Your task to perform on an android device: Open Chrome and go to the settings page Image 0: 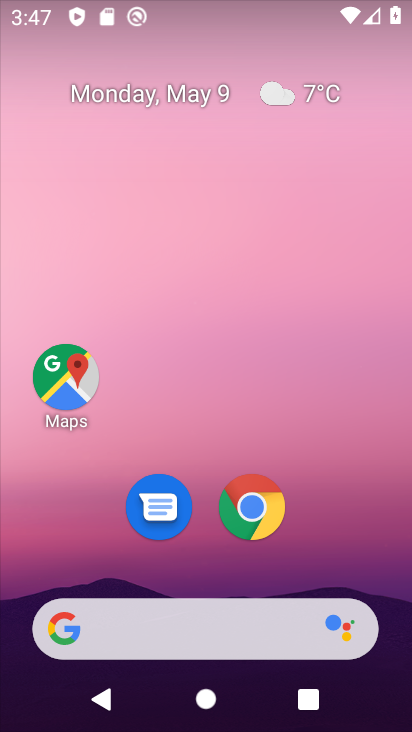
Step 0: drag from (296, 669) to (164, 80)
Your task to perform on an android device: Open Chrome and go to the settings page Image 1: 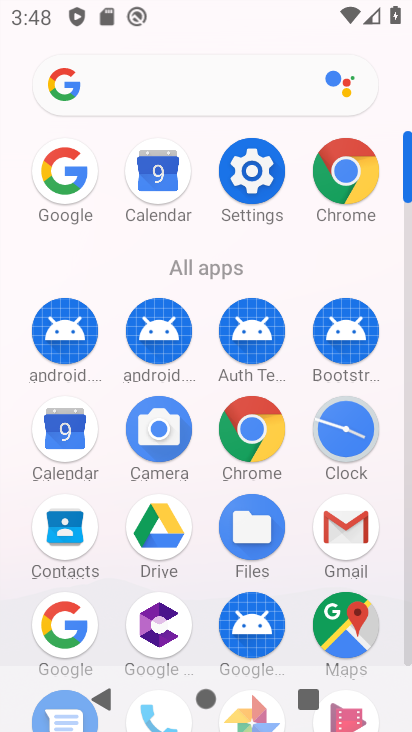
Step 1: click (349, 172)
Your task to perform on an android device: Open Chrome and go to the settings page Image 2: 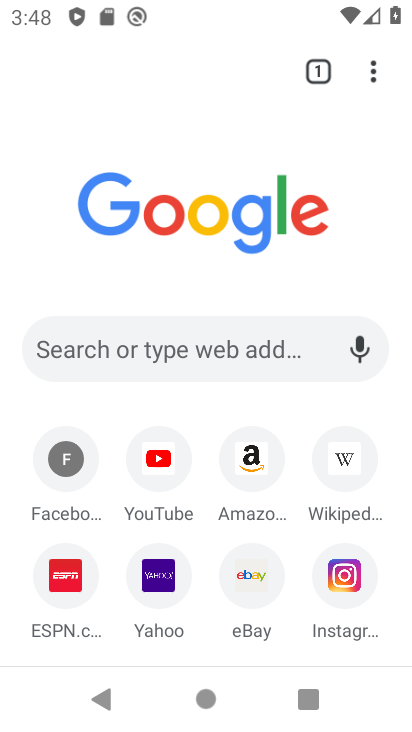
Step 2: click (371, 97)
Your task to perform on an android device: Open Chrome and go to the settings page Image 3: 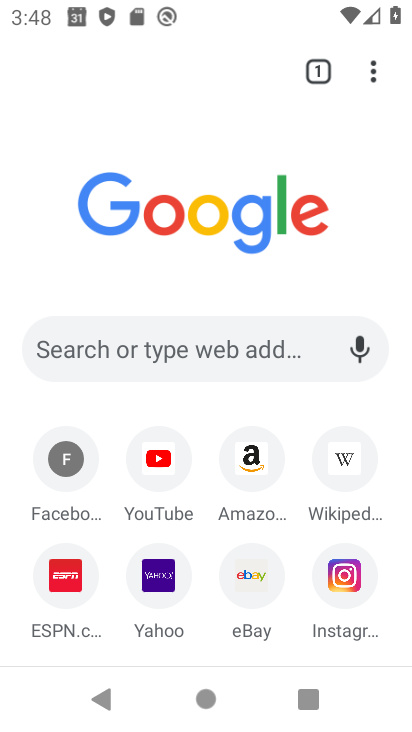
Step 3: click (376, 93)
Your task to perform on an android device: Open Chrome and go to the settings page Image 4: 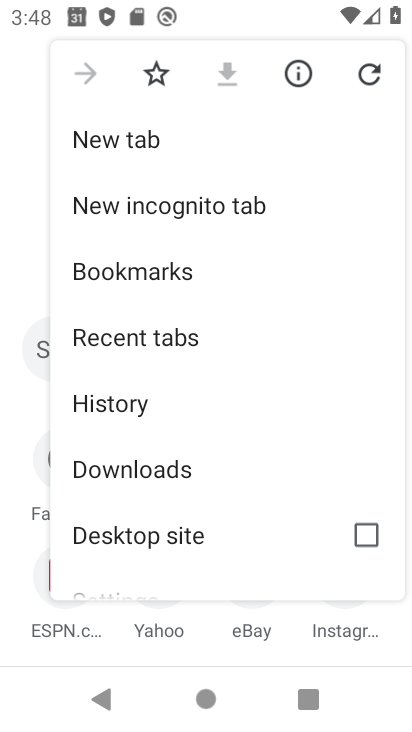
Step 4: drag from (129, 513) to (187, 420)
Your task to perform on an android device: Open Chrome and go to the settings page Image 5: 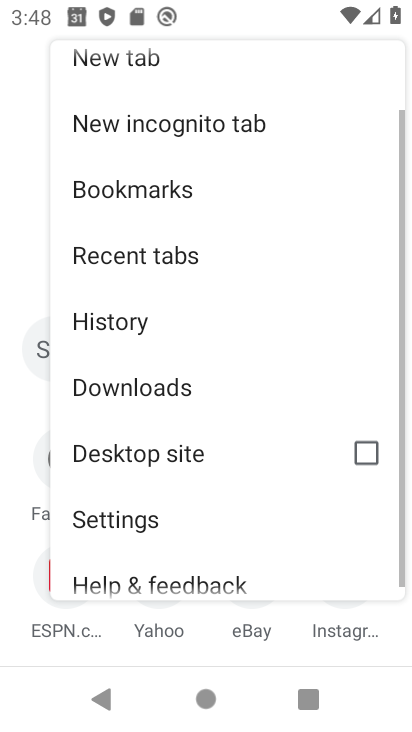
Step 5: click (139, 498)
Your task to perform on an android device: Open Chrome and go to the settings page Image 6: 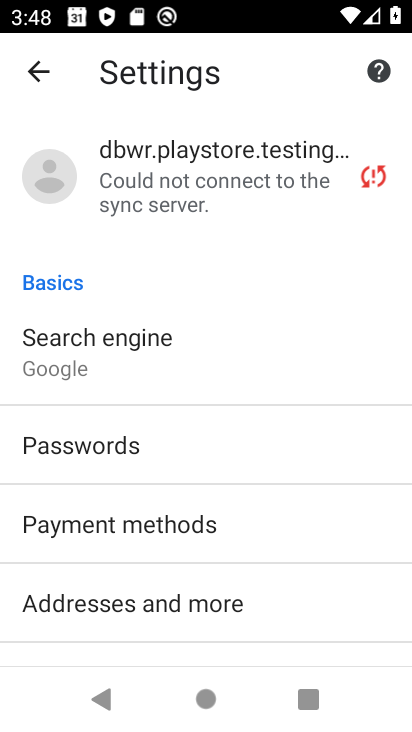
Step 6: task complete